Your task to perform on an android device: Empty the shopping cart on target.com. Search for "alienware area 51" on target.com, select the first entry, and add it to the cart. Image 0: 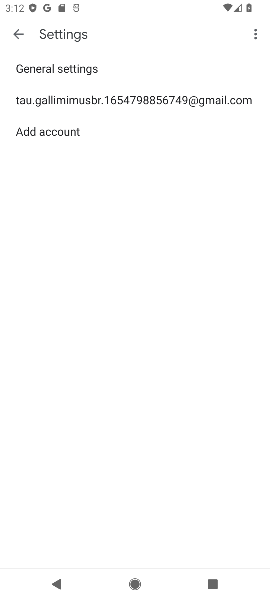
Step 0: press home button
Your task to perform on an android device: Empty the shopping cart on target.com. Search for "alienware area 51" on target.com, select the first entry, and add it to the cart. Image 1: 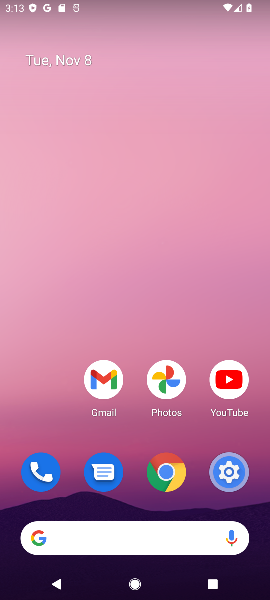
Step 1: click (141, 540)
Your task to perform on an android device: Empty the shopping cart on target.com. Search for "alienware area 51" on target.com, select the first entry, and add it to the cart. Image 2: 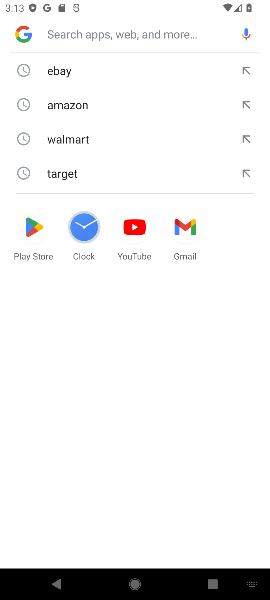
Step 2: click (70, 177)
Your task to perform on an android device: Empty the shopping cart on target.com. Search for "alienware area 51" on target.com, select the first entry, and add it to the cart. Image 3: 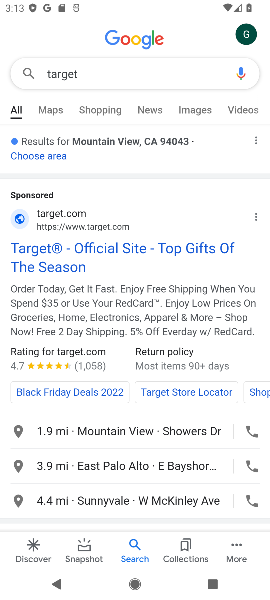
Step 3: click (79, 249)
Your task to perform on an android device: Empty the shopping cart on target.com. Search for "alienware area 51" on target.com, select the first entry, and add it to the cart. Image 4: 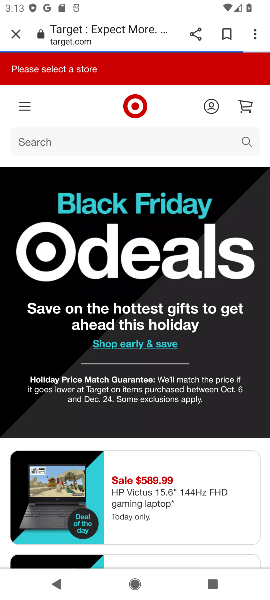
Step 4: click (227, 139)
Your task to perform on an android device: Empty the shopping cart on target.com. Search for "alienware area 51" on target.com, select the first entry, and add it to the cart. Image 5: 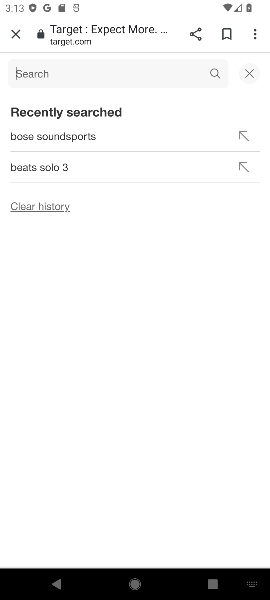
Step 5: type "alienware area 51"
Your task to perform on an android device: Empty the shopping cart on target.com. Search for "alienware area 51" on target.com, select the first entry, and add it to the cart. Image 6: 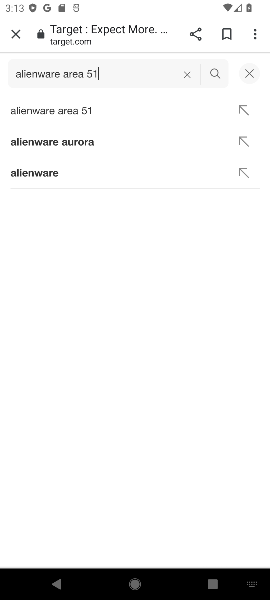
Step 6: click (86, 109)
Your task to perform on an android device: Empty the shopping cart on target.com. Search for "alienware area 51" on target.com, select the first entry, and add it to the cart. Image 7: 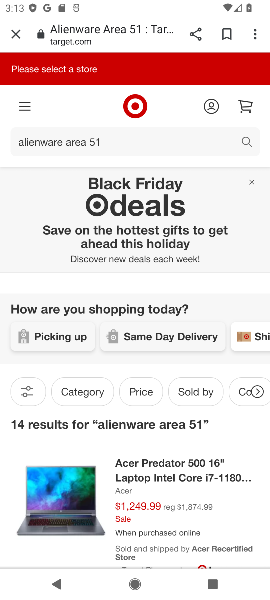
Step 7: click (132, 458)
Your task to perform on an android device: Empty the shopping cart on target.com. Search for "alienware area 51" on target.com, select the first entry, and add it to the cart. Image 8: 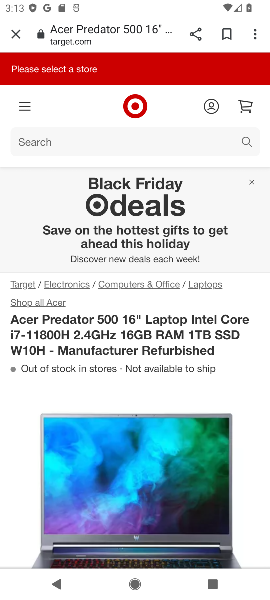
Step 8: drag from (259, 518) to (224, 236)
Your task to perform on an android device: Empty the shopping cart on target.com. Search for "alienware area 51" on target.com, select the first entry, and add it to the cart. Image 9: 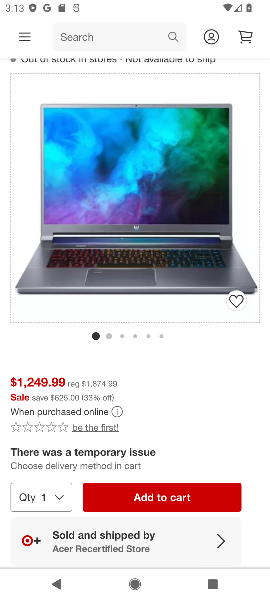
Step 9: click (189, 509)
Your task to perform on an android device: Empty the shopping cart on target.com. Search for "alienware area 51" on target.com, select the first entry, and add it to the cart. Image 10: 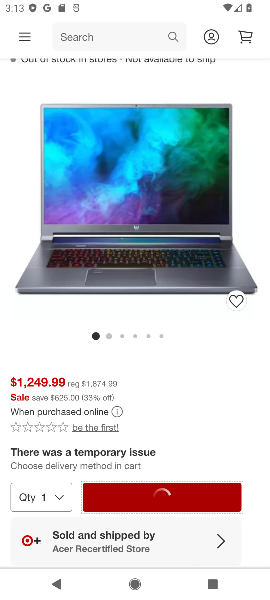
Step 10: task complete